Your task to perform on an android device: turn vacation reply on in the gmail app Image 0: 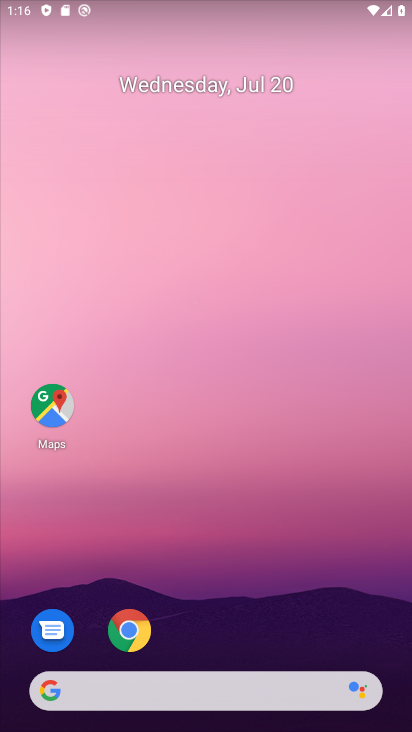
Step 0: drag from (274, 632) to (318, 45)
Your task to perform on an android device: turn vacation reply on in the gmail app Image 1: 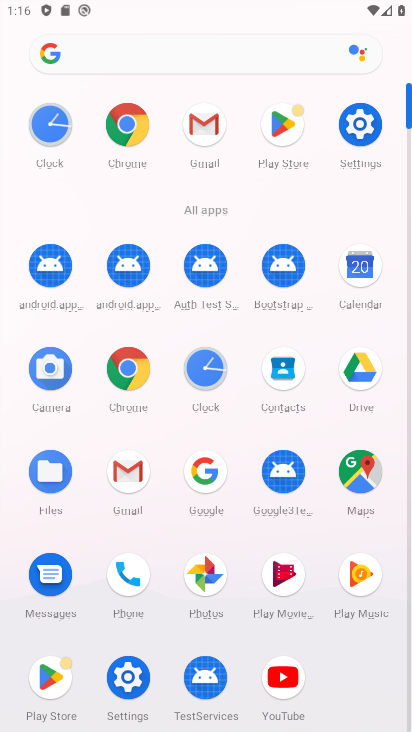
Step 1: click (207, 131)
Your task to perform on an android device: turn vacation reply on in the gmail app Image 2: 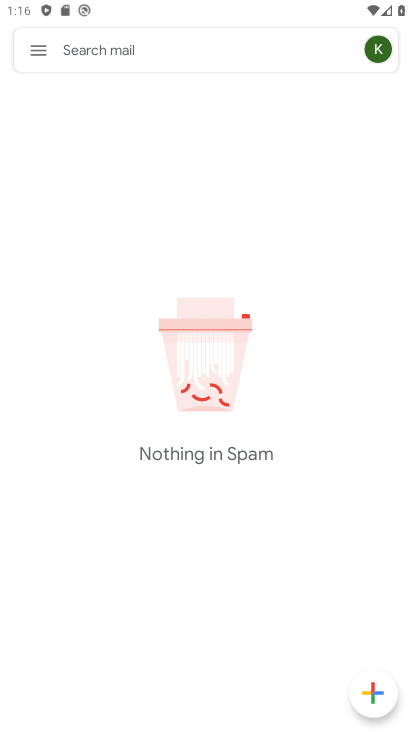
Step 2: click (46, 50)
Your task to perform on an android device: turn vacation reply on in the gmail app Image 3: 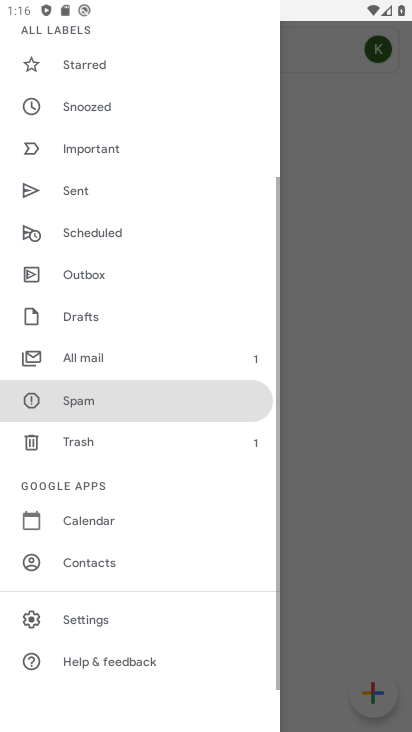
Step 3: click (103, 627)
Your task to perform on an android device: turn vacation reply on in the gmail app Image 4: 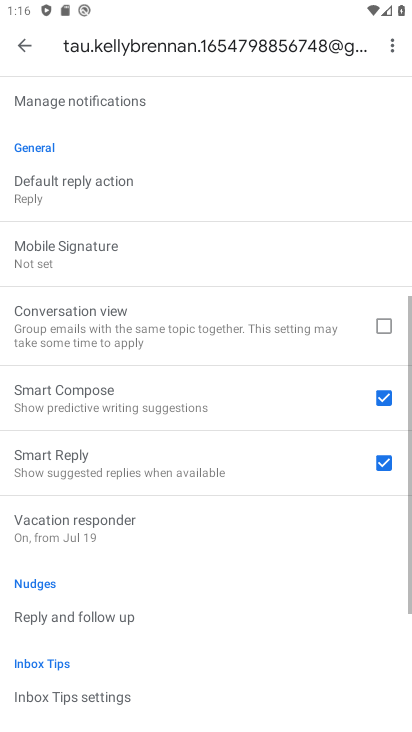
Step 4: drag from (212, 157) to (214, 670)
Your task to perform on an android device: turn vacation reply on in the gmail app Image 5: 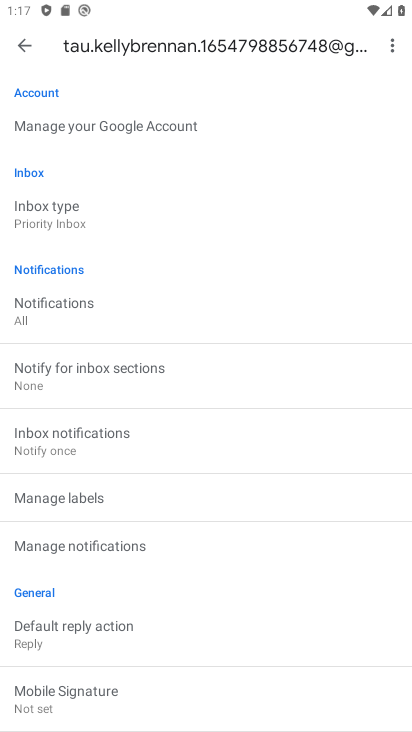
Step 5: drag from (206, 634) to (255, 32)
Your task to perform on an android device: turn vacation reply on in the gmail app Image 6: 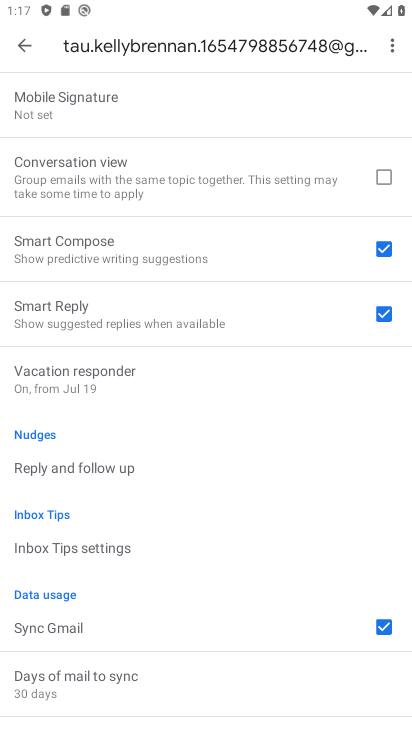
Step 6: click (147, 380)
Your task to perform on an android device: turn vacation reply on in the gmail app Image 7: 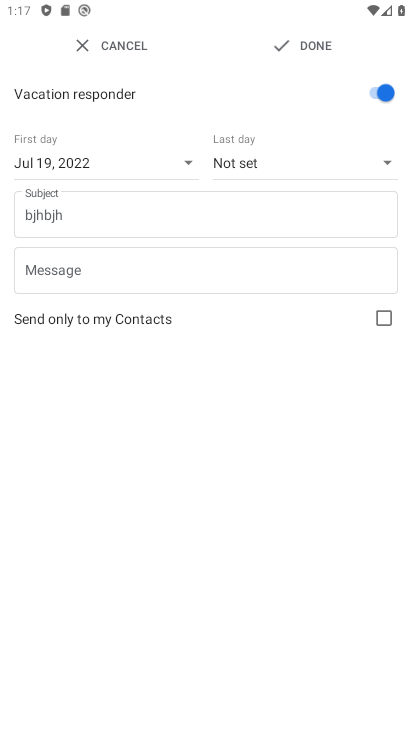
Step 7: task complete